Your task to perform on an android device: check the backup settings in the google photos Image 0: 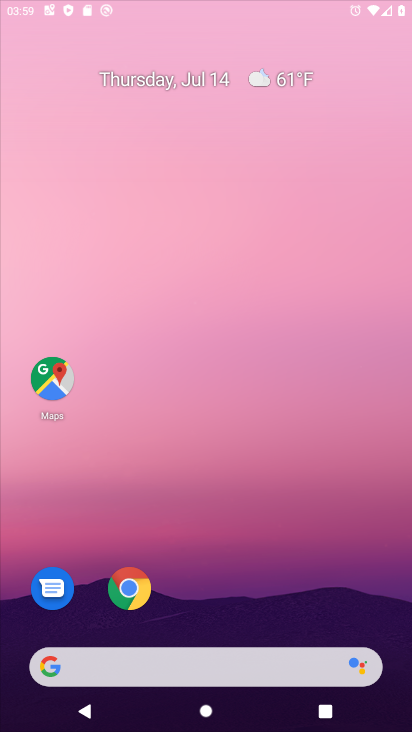
Step 0: press home button
Your task to perform on an android device: check the backup settings in the google photos Image 1: 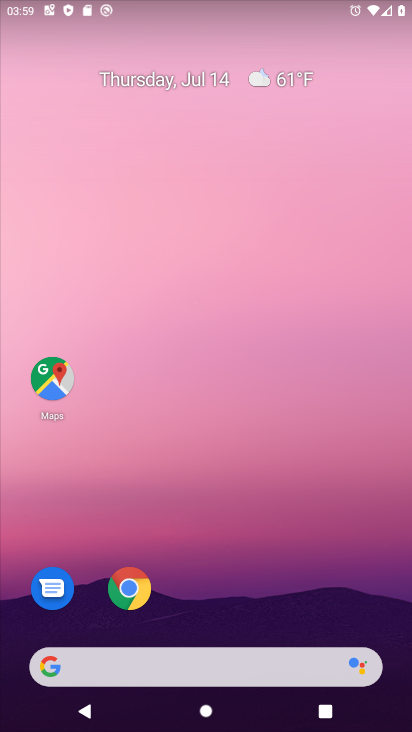
Step 1: drag from (312, 588) to (270, 210)
Your task to perform on an android device: check the backup settings in the google photos Image 2: 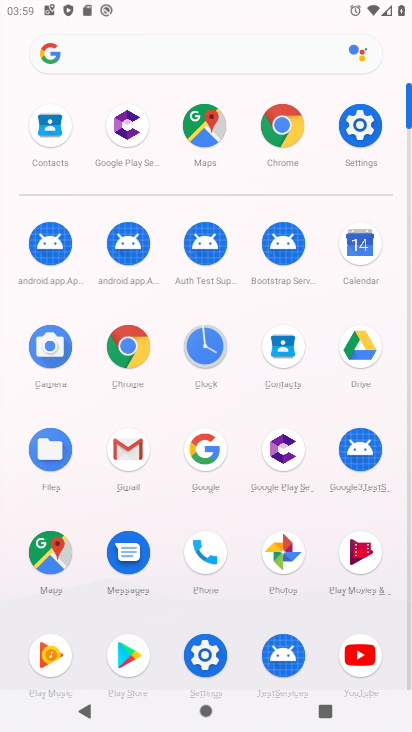
Step 2: click (280, 553)
Your task to perform on an android device: check the backup settings in the google photos Image 3: 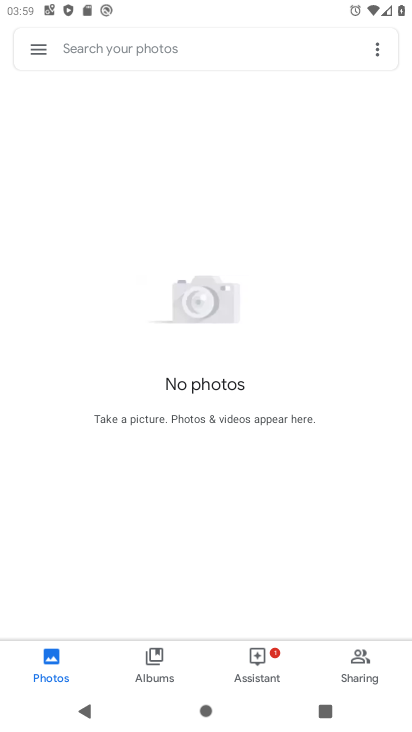
Step 3: click (39, 46)
Your task to perform on an android device: check the backup settings in the google photos Image 4: 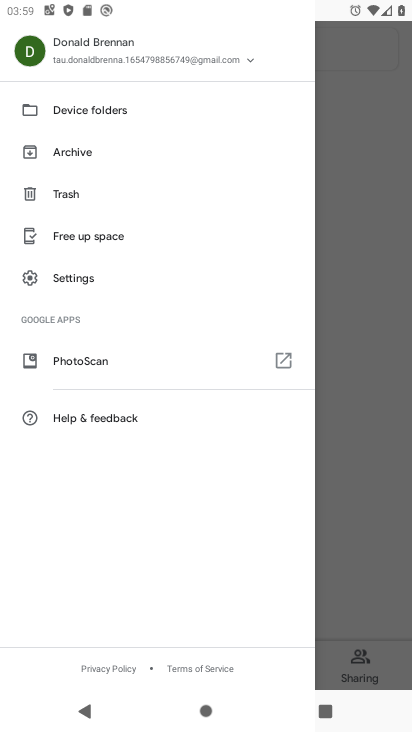
Step 4: click (69, 271)
Your task to perform on an android device: check the backup settings in the google photos Image 5: 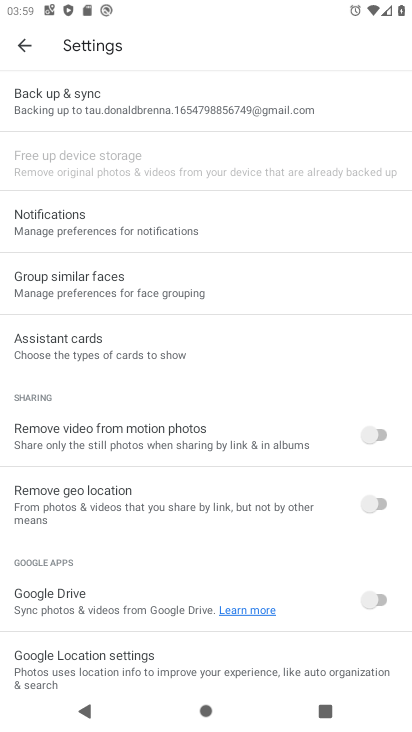
Step 5: click (107, 91)
Your task to perform on an android device: check the backup settings in the google photos Image 6: 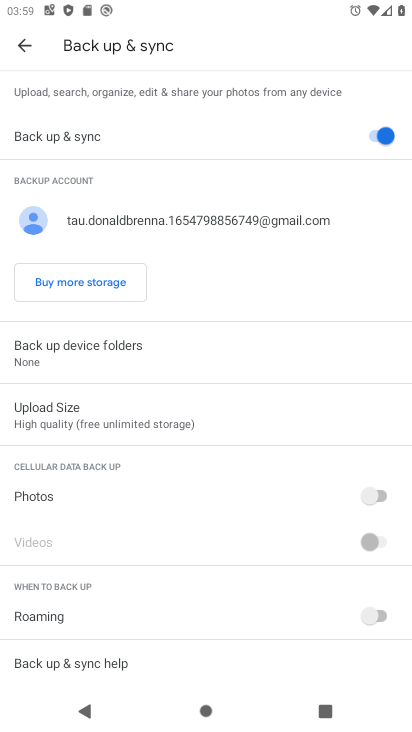
Step 6: task complete